Your task to perform on an android device: Go to accessibility settings Image 0: 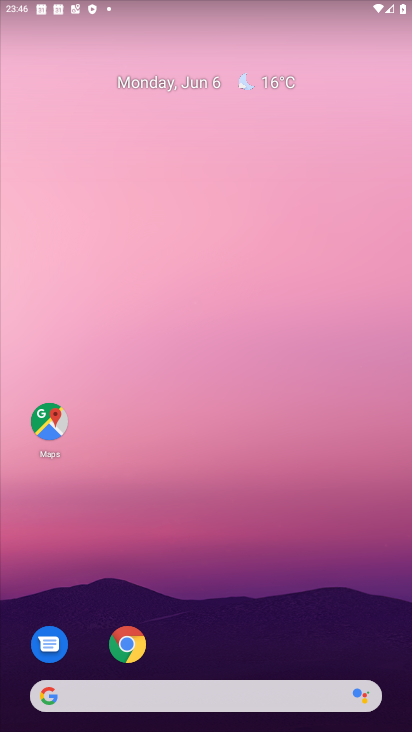
Step 0: drag from (291, 569) to (225, 5)
Your task to perform on an android device: Go to accessibility settings Image 1: 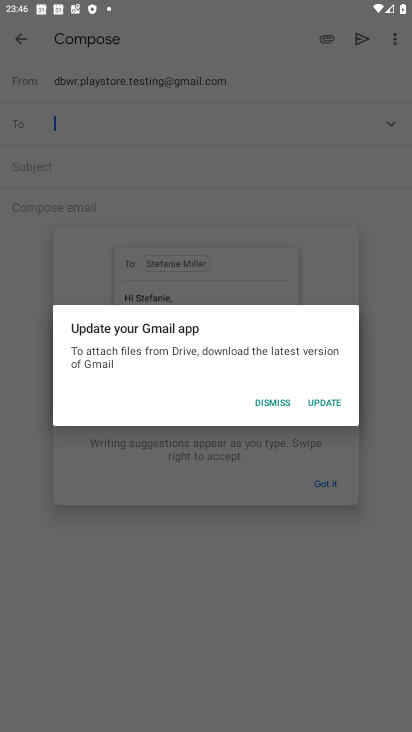
Step 1: press back button
Your task to perform on an android device: Go to accessibility settings Image 2: 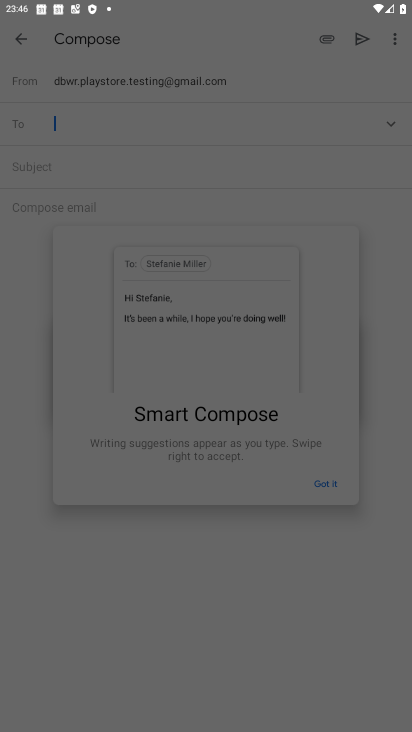
Step 2: press back button
Your task to perform on an android device: Go to accessibility settings Image 3: 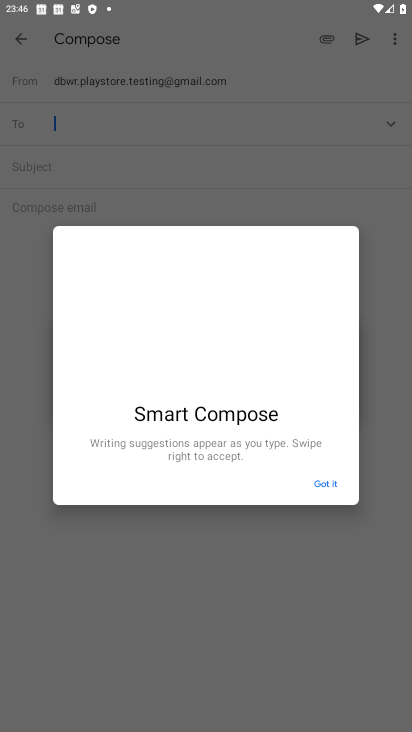
Step 3: press back button
Your task to perform on an android device: Go to accessibility settings Image 4: 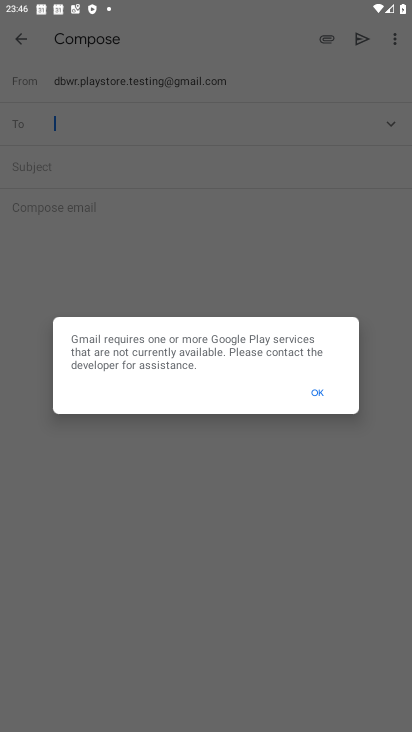
Step 4: press home button
Your task to perform on an android device: Go to accessibility settings Image 5: 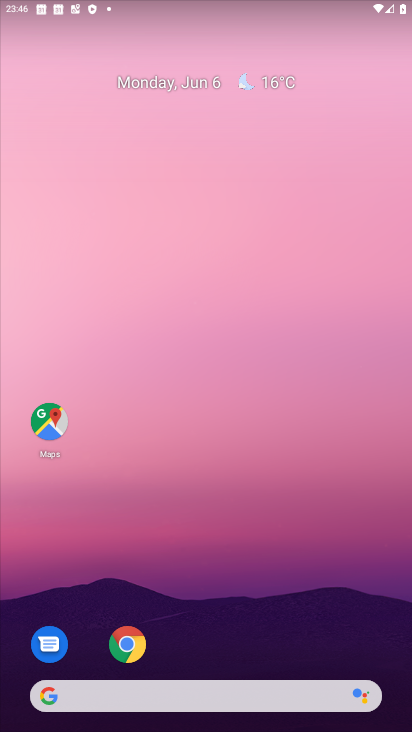
Step 5: drag from (272, 582) to (231, 43)
Your task to perform on an android device: Go to accessibility settings Image 6: 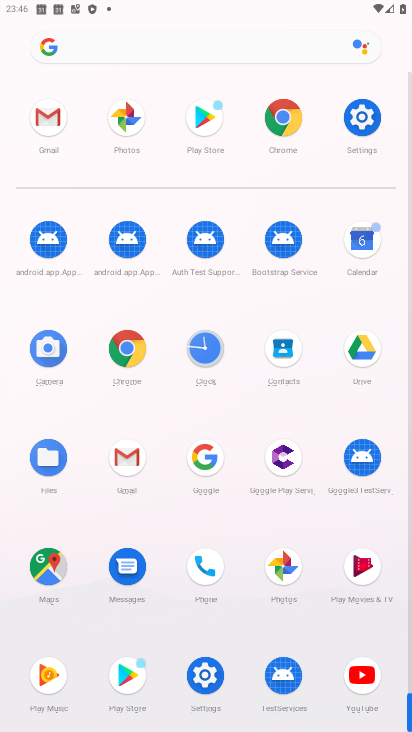
Step 6: click (204, 676)
Your task to perform on an android device: Go to accessibility settings Image 7: 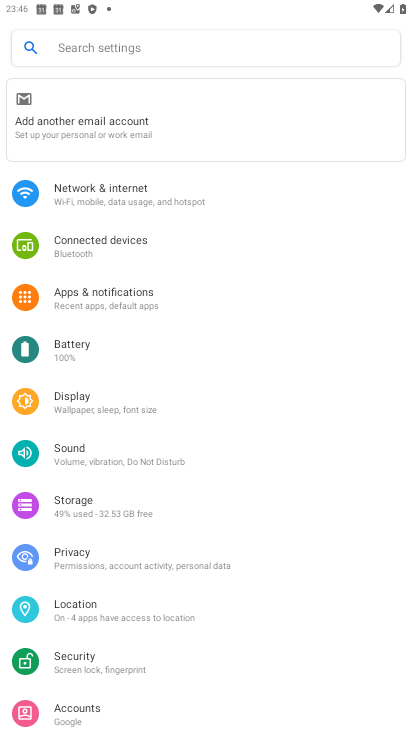
Step 7: drag from (273, 582) to (269, 157)
Your task to perform on an android device: Go to accessibility settings Image 8: 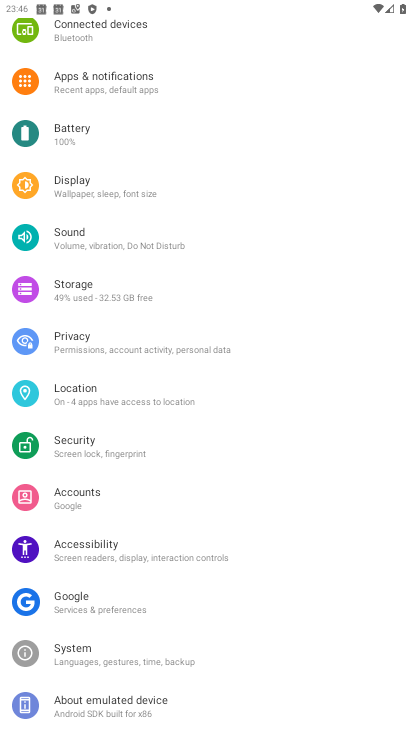
Step 8: click (101, 545)
Your task to perform on an android device: Go to accessibility settings Image 9: 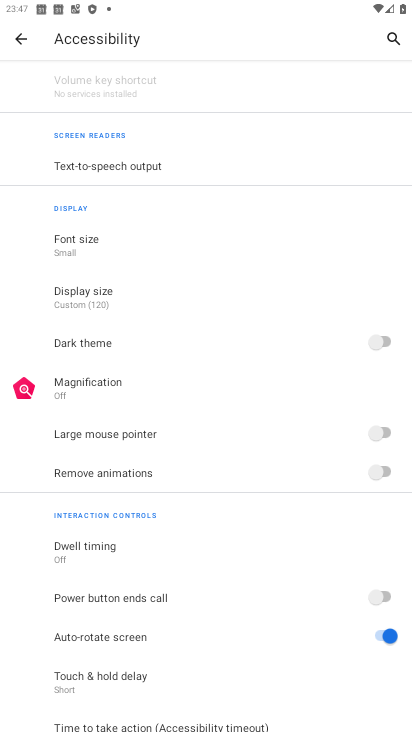
Step 9: task complete